Your task to perform on an android device: Search for pizza restaurants on Maps Image 0: 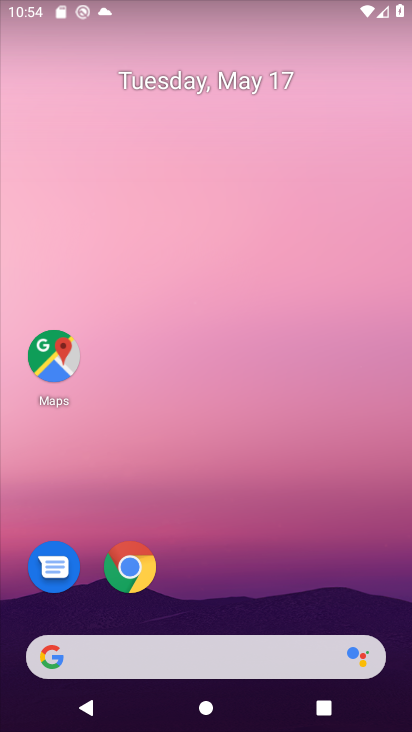
Step 0: click (45, 346)
Your task to perform on an android device: Search for pizza restaurants on Maps Image 1: 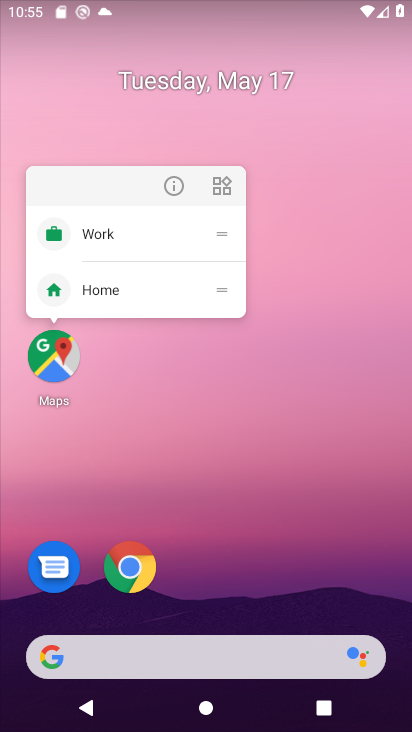
Step 1: click (44, 358)
Your task to perform on an android device: Search for pizza restaurants on Maps Image 2: 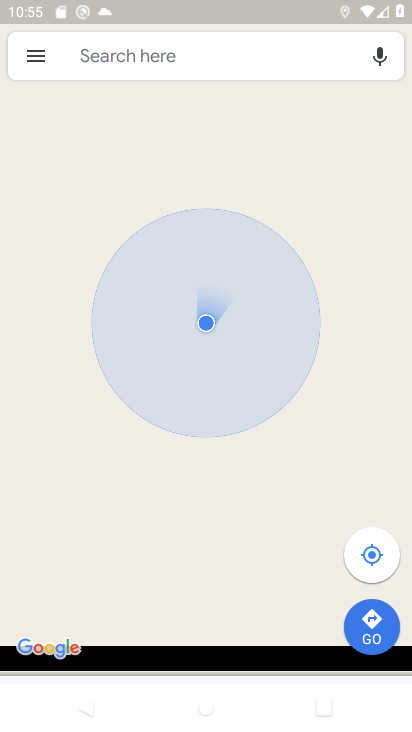
Step 2: click (132, 57)
Your task to perform on an android device: Search for pizza restaurants on Maps Image 3: 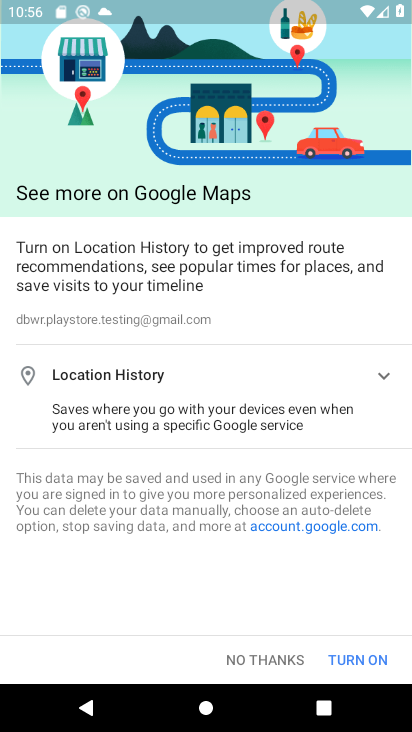
Step 3: click (259, 652)
Your task to perform on an android device: Search for pizza restaurants on Maps Image 4: 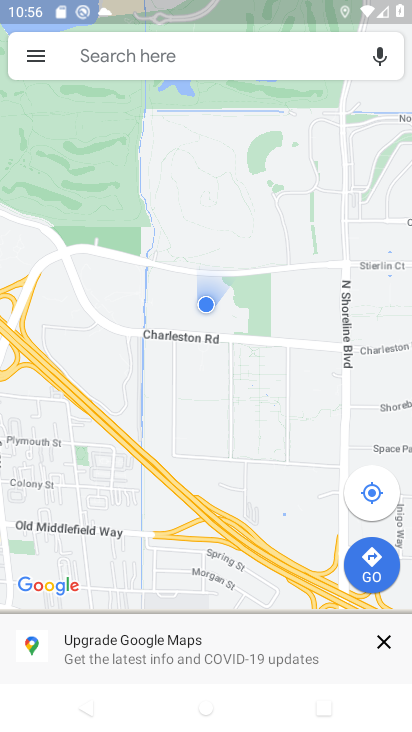
Step 4: click (103, 64)
Your task to perform on an android device: Search for pizza restaurants on Maps Image 5: 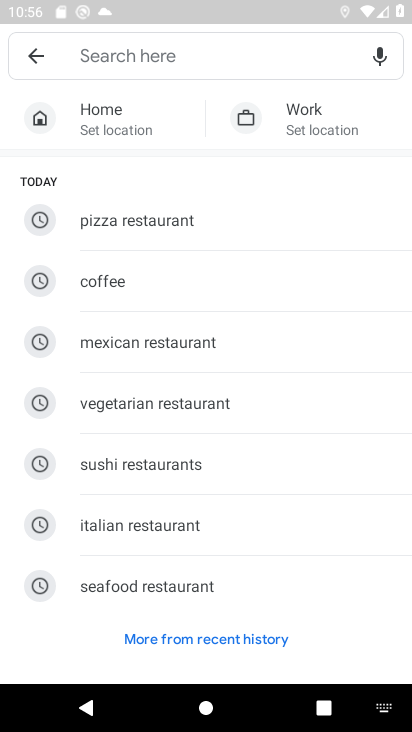
Step 5: click (109, 216)
Your task to perform on an android device: Search for pizza restaurants on Maps Image 6: 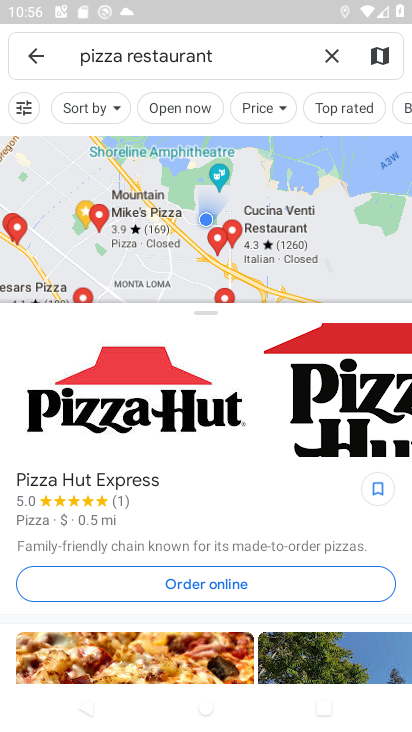
Step 6: task complete